Your task to perform on an android device: delete browsing data in the chrome app Image 0: 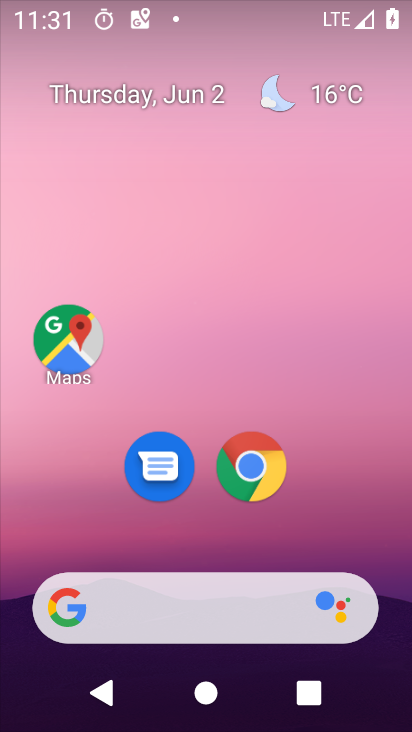
Step 0: click (254, 478)
Your task to perform on an android device: delete browsing data in the chrome app Image 1: 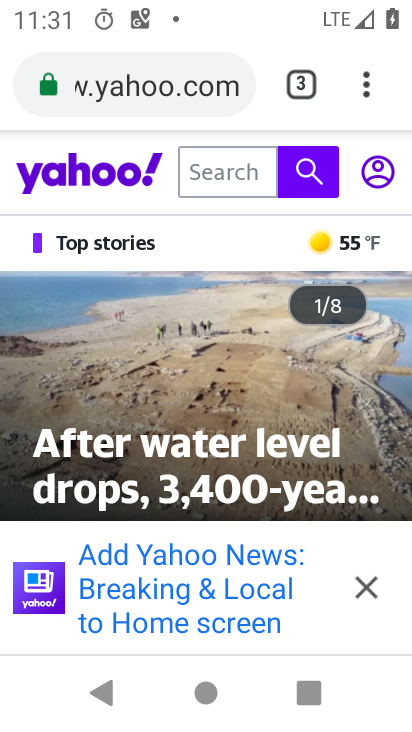
Step 1: drag from (353, 80) to (81, 469)
Your task to perform on an android device: delete browsing data in the chrome app Image 2: 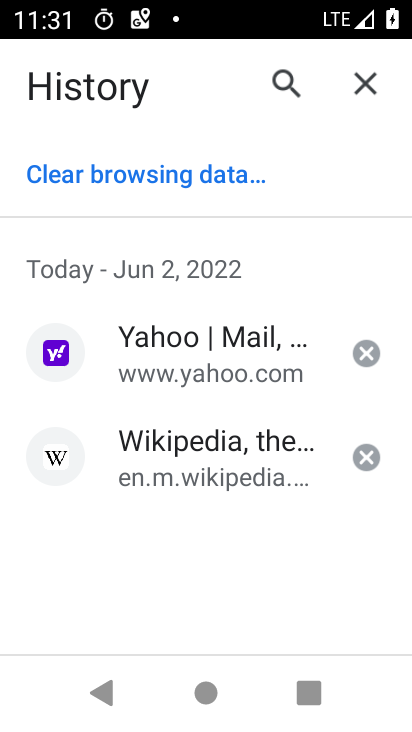
Step 2: click (233, 166)
Your task to perform on an android device: delete browsing data in the chrome app Image 3: 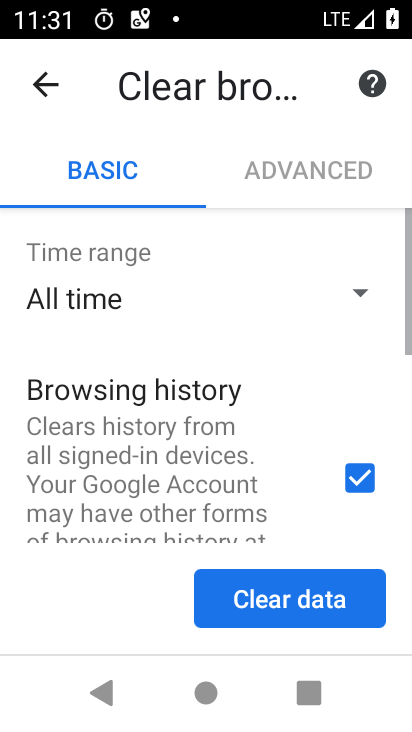
Step 3: drag from (262, 517) to (263, 72)
Your task to perform on an android device: delete browsing data in the chrome app Image 4: 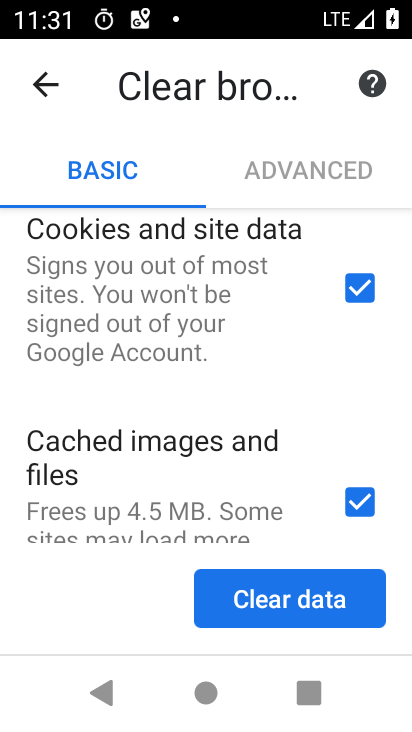
Step 4: drag from (278, 445) to (276, 212)
Your task to perform on an android device: delete browsing data in the chrome app Image 5: 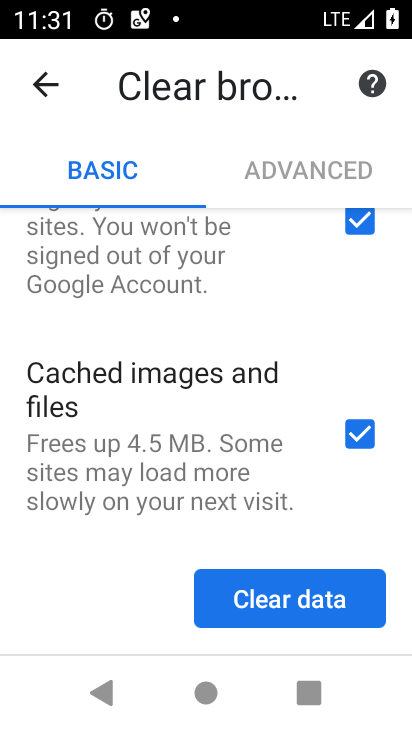
Step 5: click (314, 611)
Your task to perform on an android device: delete browsing data in the chrome app Image 6: 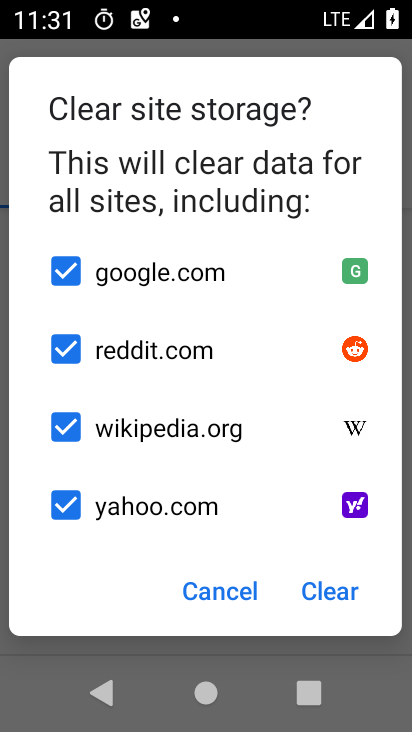
Step 6: click (336, 590)
Your task to perform on an android device: delete browsing data in the chrome app Image 7: 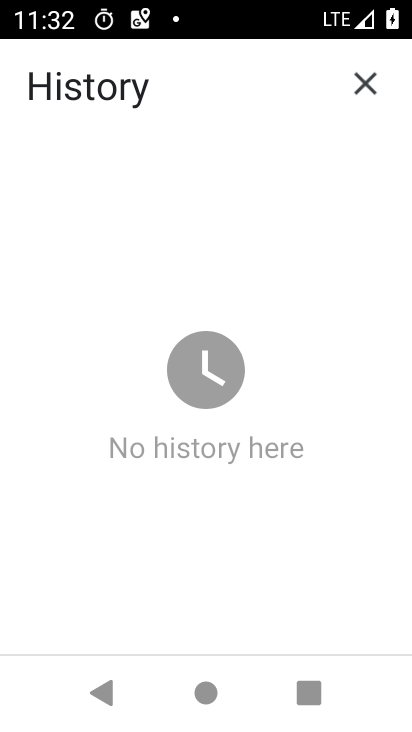
Step 7: task complete